Your task to perform on an android device: delete the emails in spam in the gmail app Image 0: 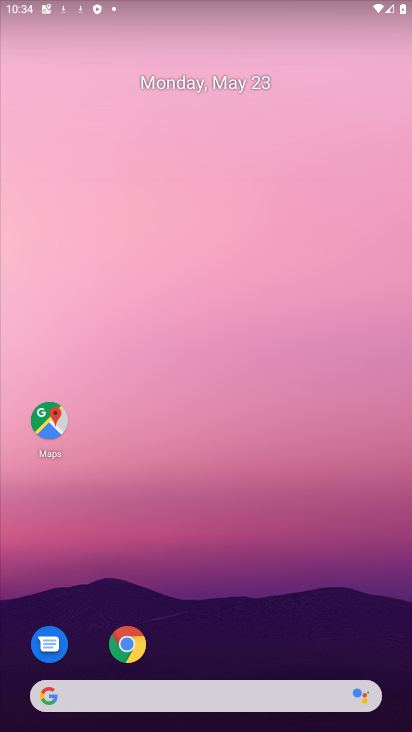
Step 0: press home button
Your task to perform on an android device: delete the emails in spam in the gmail app Image 1: 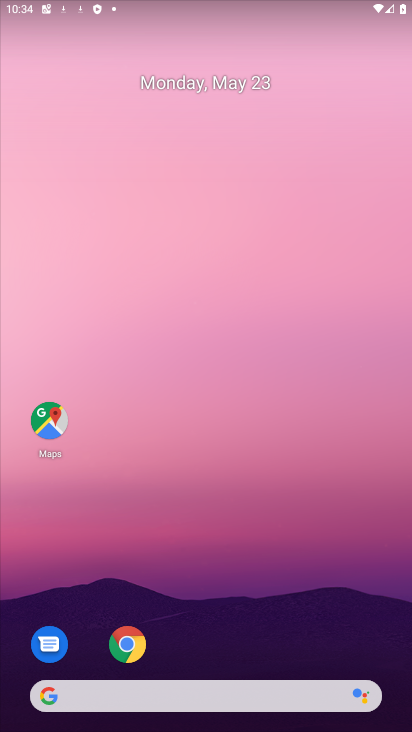
Step 1: drag from (296, 718) to (300, 101)
Your task to perform on an android device: delete the emails in spam in the gmail app Image 2: 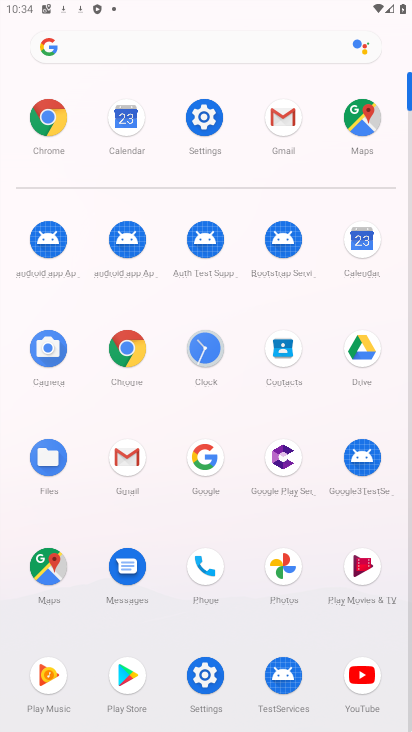
Step 2: click (274, 128)
Your task to perform on an android device: delete the emails in spam in the gmail app Image 3: 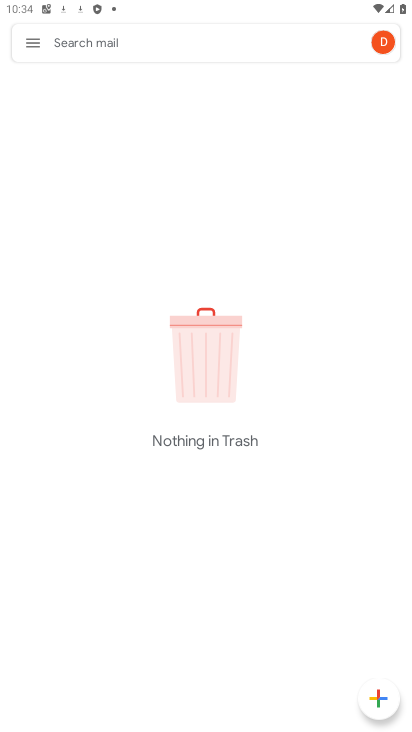
Step 3: click (47, 34)
Your task to perform on an android device: delete the emails in spam in the gmail app Image 4: 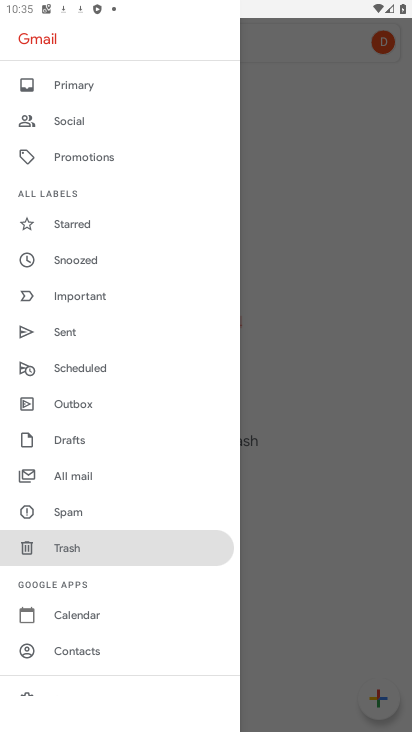
Step 4: click (79, 511)
Your task to perform on an android device: delete the emails in spam in the gmail app Image 5: 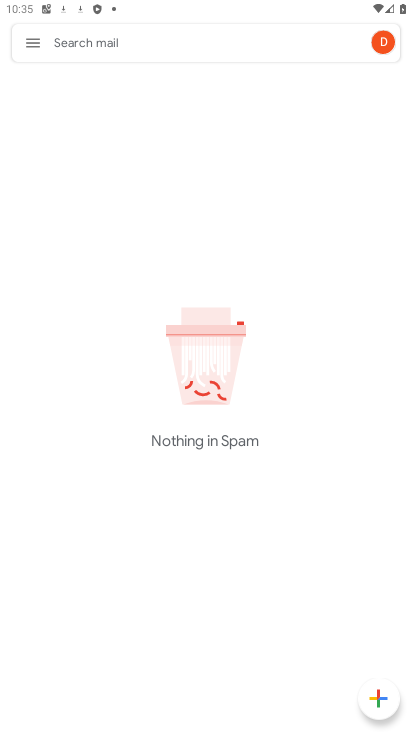
Step 5: task complete